Your task to perform on an android device: Go to internet settings Image 0: 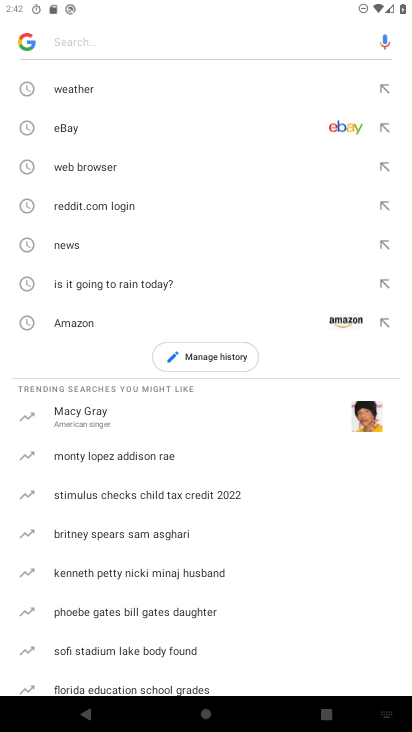
Step 0: press home button
Your task to perform on an android device: Go to internet settings Image 1: 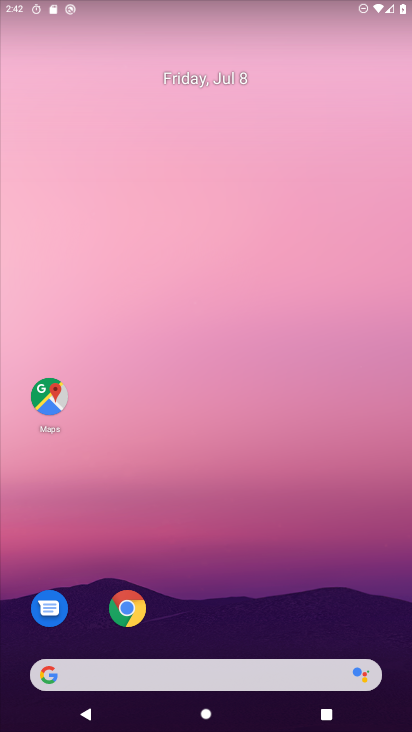
Step 1: drag from (234, 726) to (187, 83)
Your task to perform on an android device: Go to internet settings Image 2: 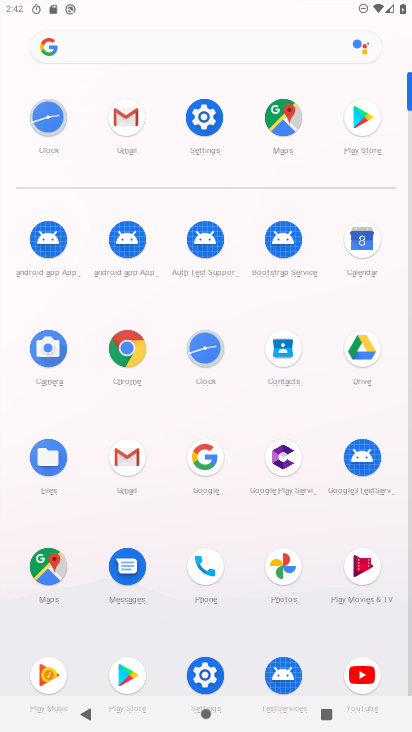
Step 2: click (203, 114)
Your task to perform on an android device: Go to internet settings Image 3: 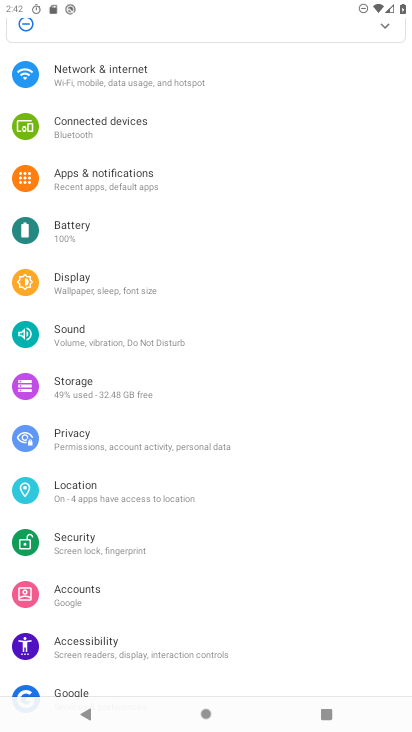
Step 3: click (103, 87)
Your task to perform on an android device: Go to internet settings Image 4: 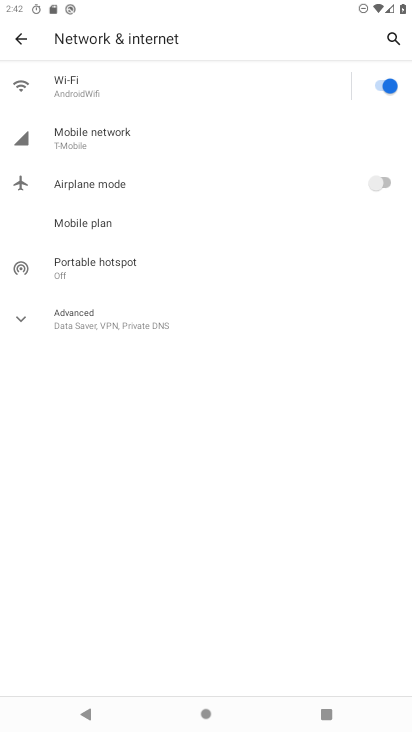
Step 4: task complete